Your task to perform on an android device: delete a single message in the gmail app Image 0: 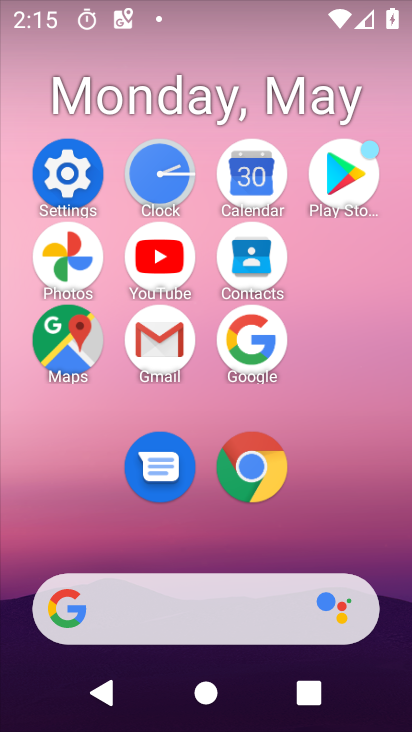
Step 0: click (150, 352)
Your task to perform on an android device: delete a single message in the gmail app Image 1: 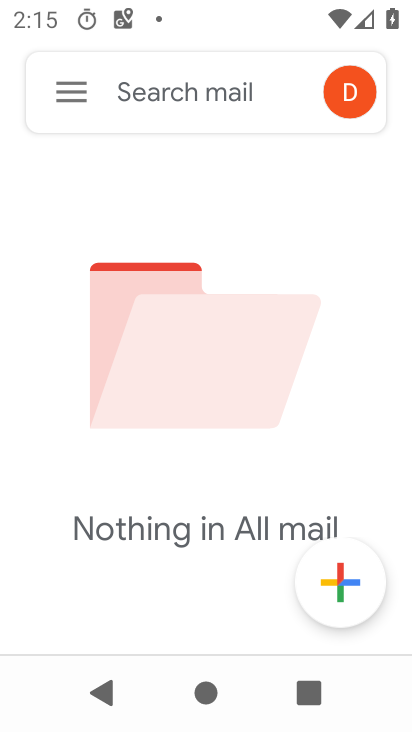
Step 1: task complete